Your task to perform on an android device: turn on the 12-hour format for clock Image 0: 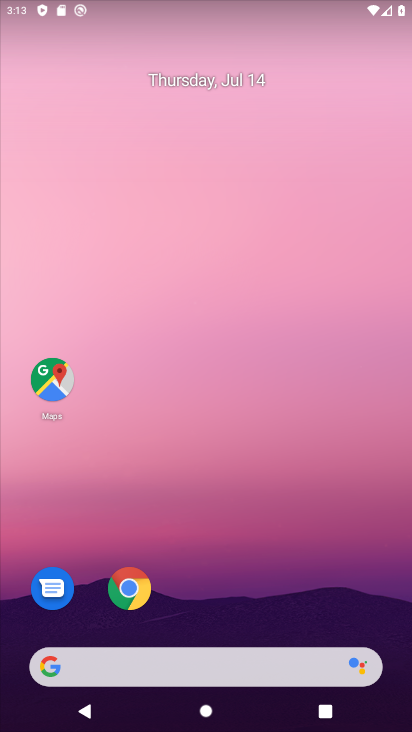
Step 0: drag from (291, 536) to (330, 24)
Your task to perform on an android device: turn on the 12-hour format for clock Image 1: 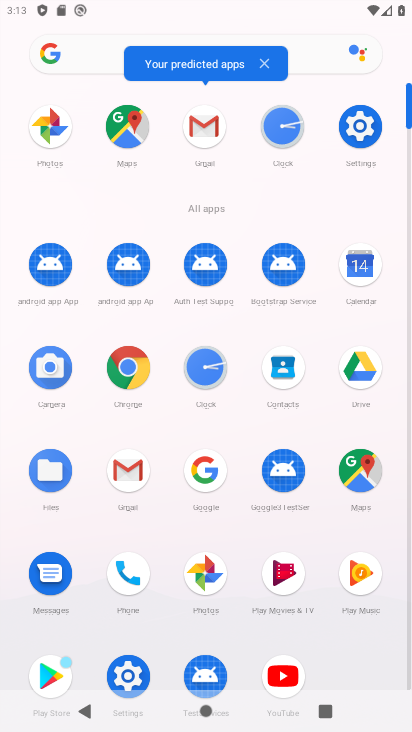
Step 1: click (212, 372)
Your task to perform on an android device: turn on the 12-hour format for clock Image 2: 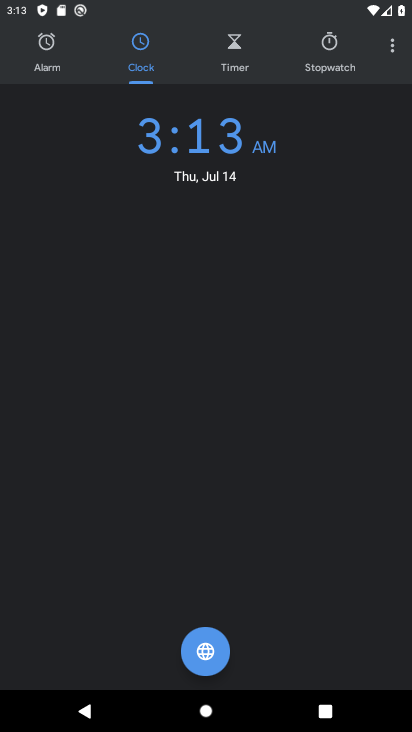
Step 2: click (392, 46)
Your task to perform on an android device: turn on the 12-hour format for clock Image 3: 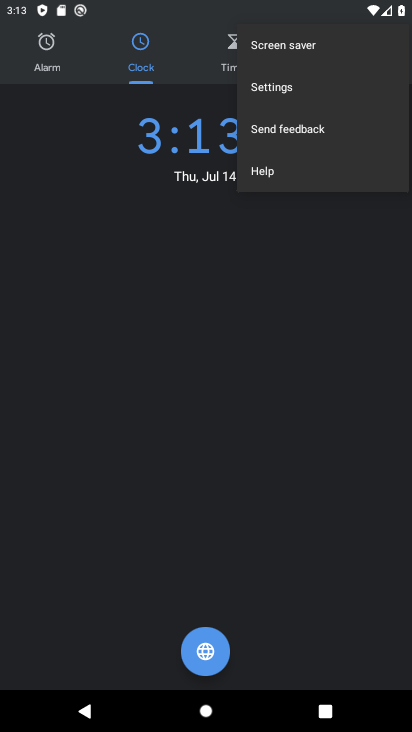
Step 3: click (293, 90)
Your task to perform on an android device: turn on the 12-hour format for clock Image 4: 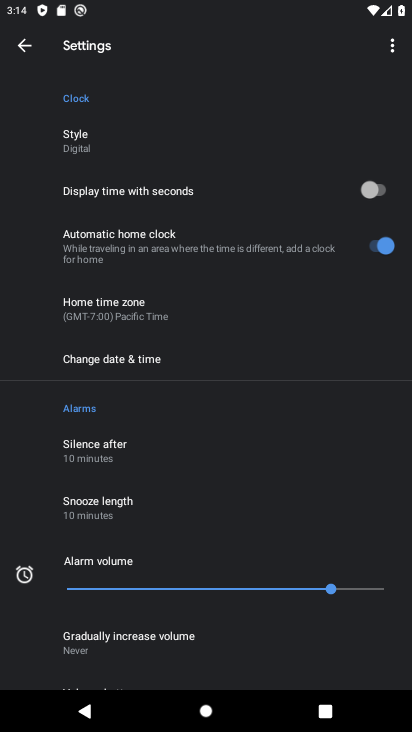
Step 4: click (82, 358)
Your task to perform on an android device: turn on the 12-hour format for clock Image 5: 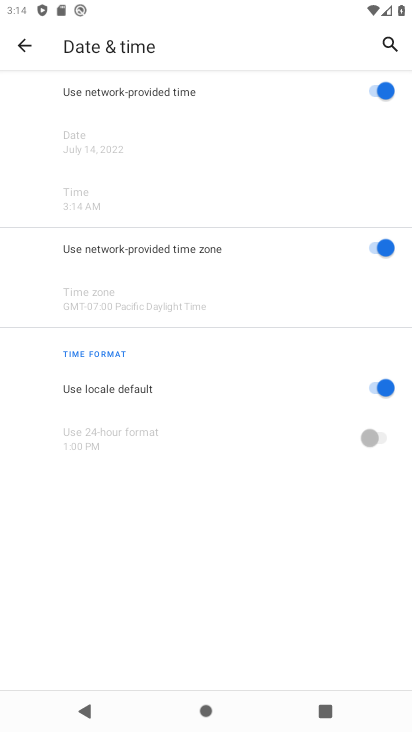
Step 5: task complete